Your task to perform on an android device: all mails in gmail Image 0: 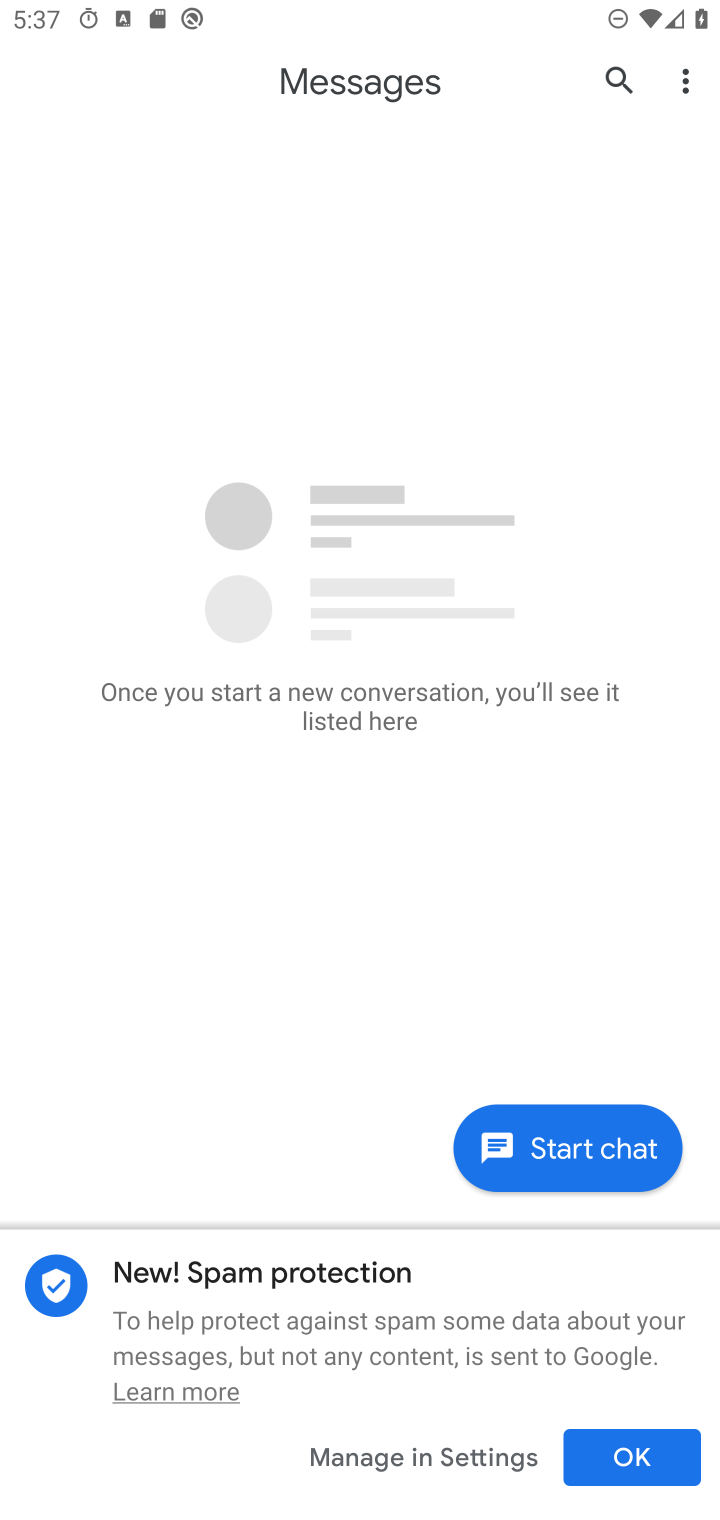
Step 0: press home button
Your task to perform on an android device: all mails in gmail Image 1: 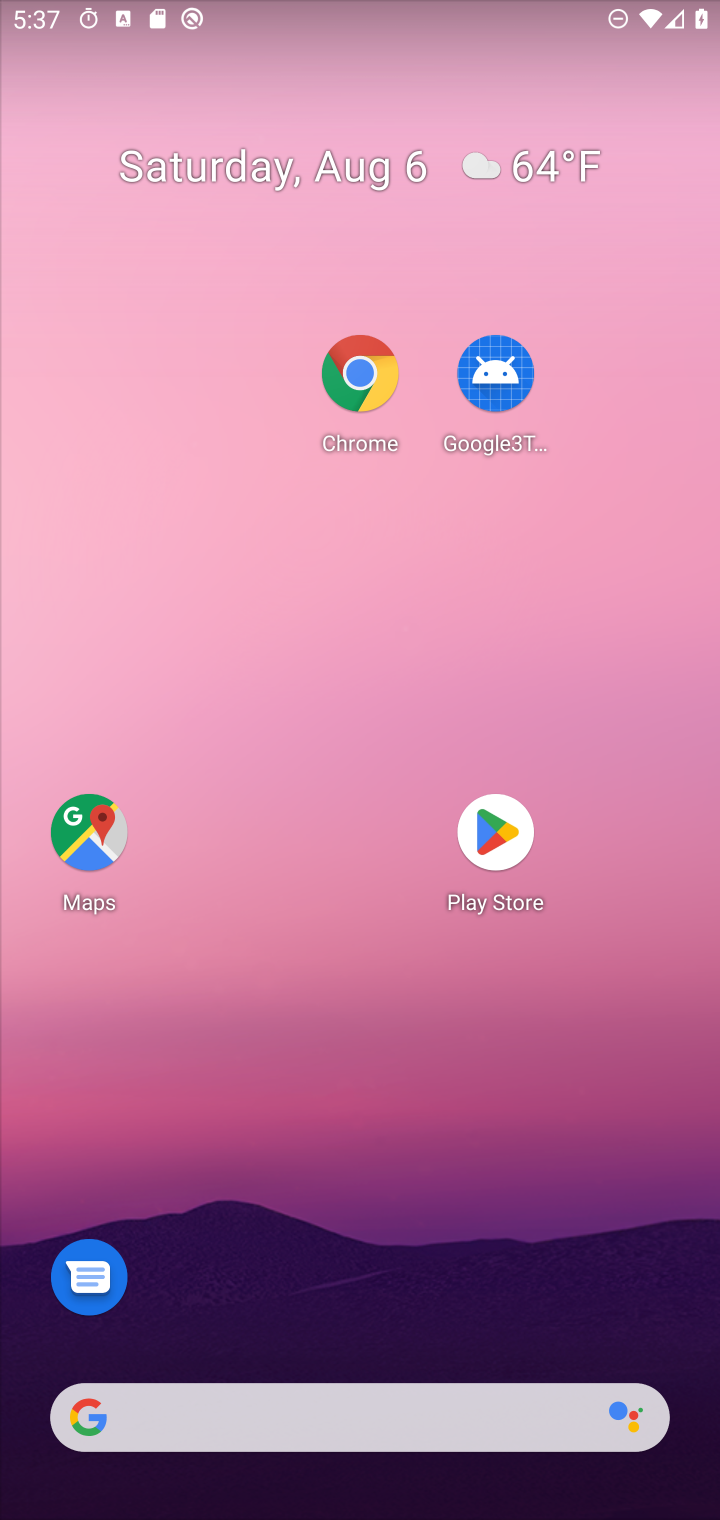
Step 1: drag from (246, 1377) to (156, 29)
Your task to perform on an android device: all mails in gmail Image 2: 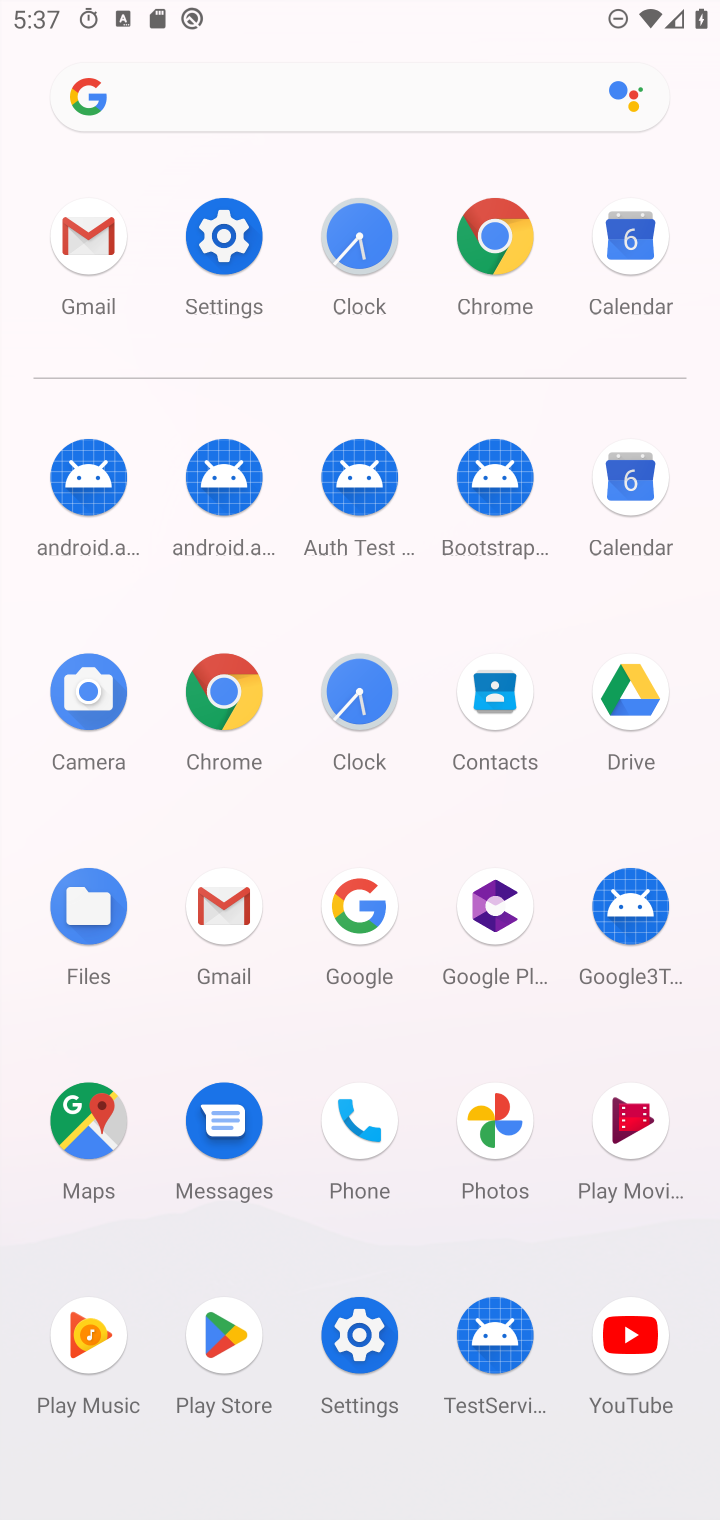
Step 2: click (215, 917)
Your task to perform on an android device: all mails in gmail Image 3: 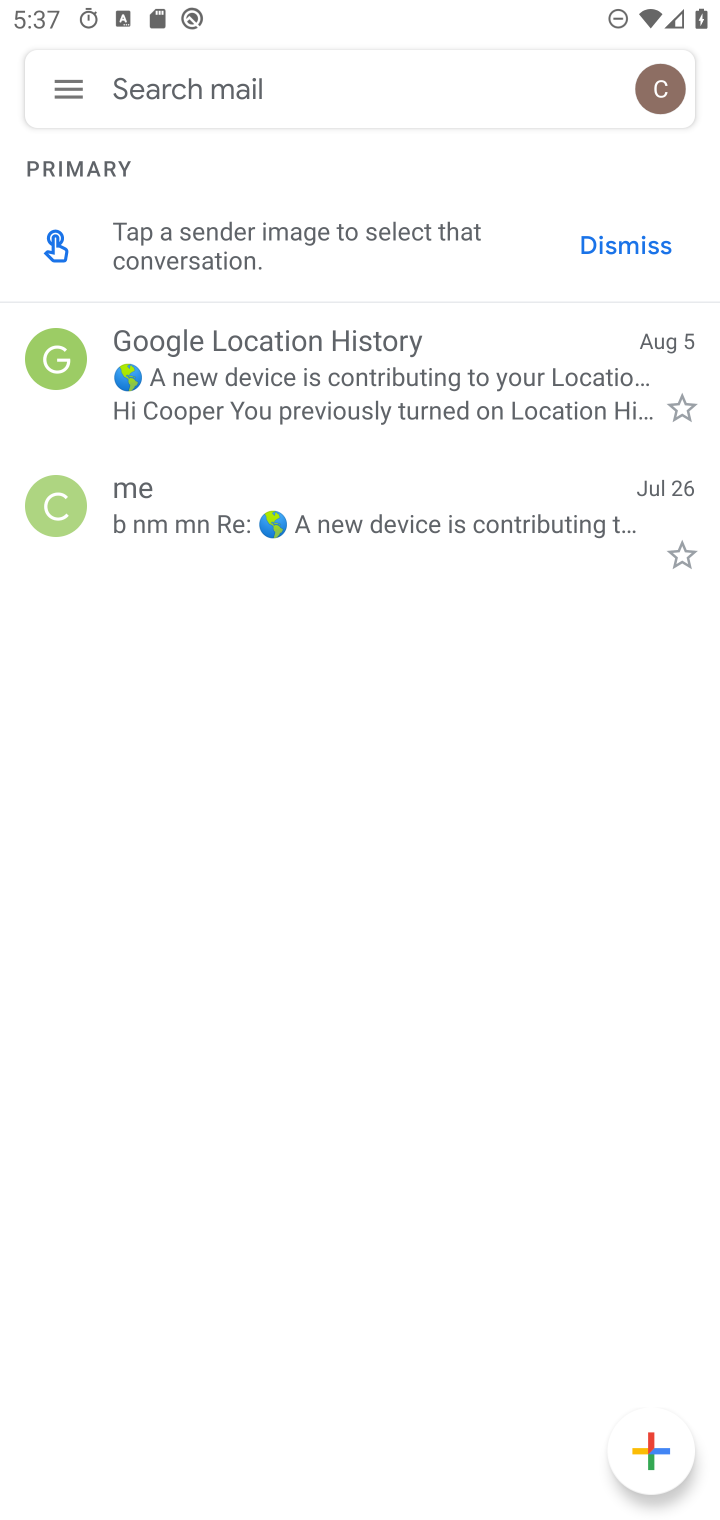
Step 3: click (68, 85)
Your task to perform on an android device: all mails in gmail Image 4: 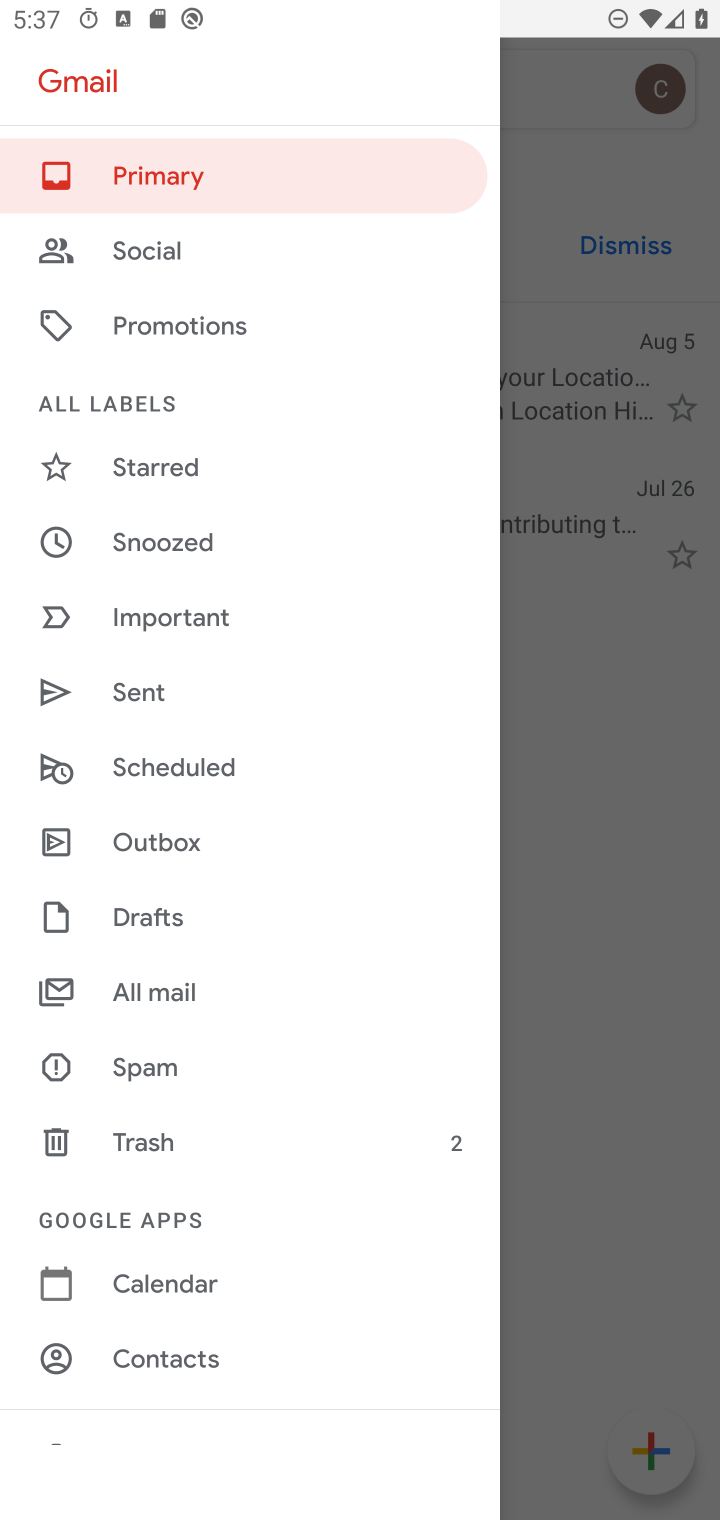
Step 4: click (168, 978)
Your task to perform on an android device: all mails in gmail Image 5: 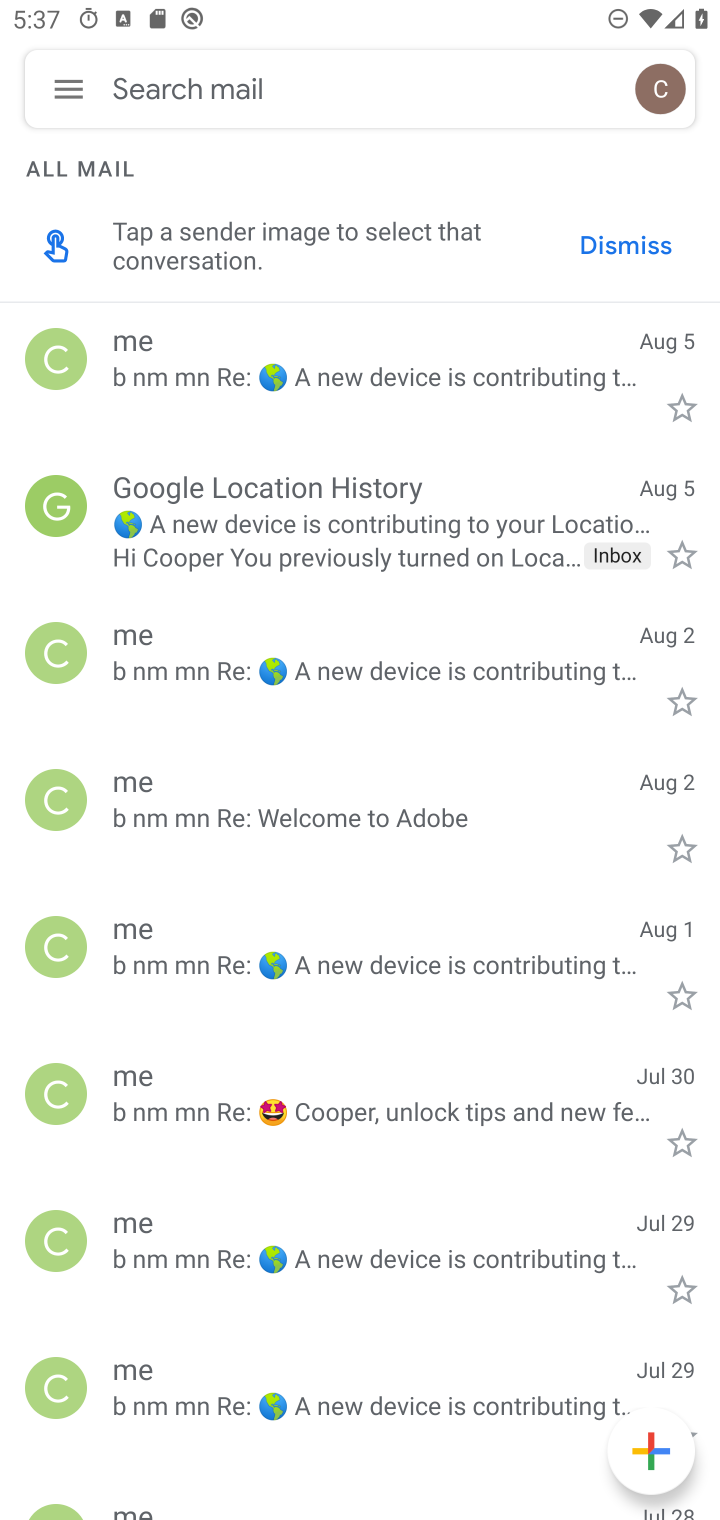
Step 5: task complete